Your task to perform on an android device: When is my next appointment? Image 0: 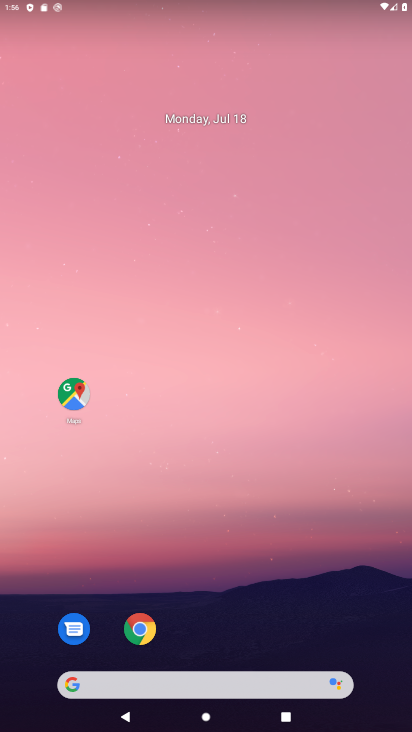
Step 0: drag from (192, 636) to (201, 174)
Your task to perform on an android device: When is my next appointment? Image 1: 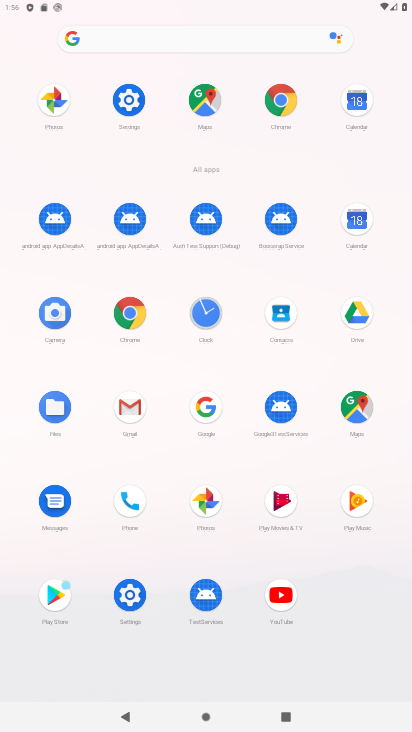
Step 1: click (361, 234)
Your task to perform on an android device: When is my next appointment? Image 2: 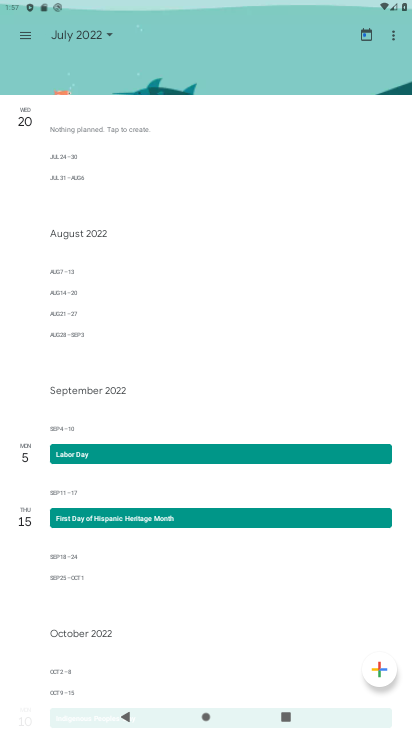
Step 2: task complete